Your task to perform on an android device: refresh tabs in the chrome app Image 0: 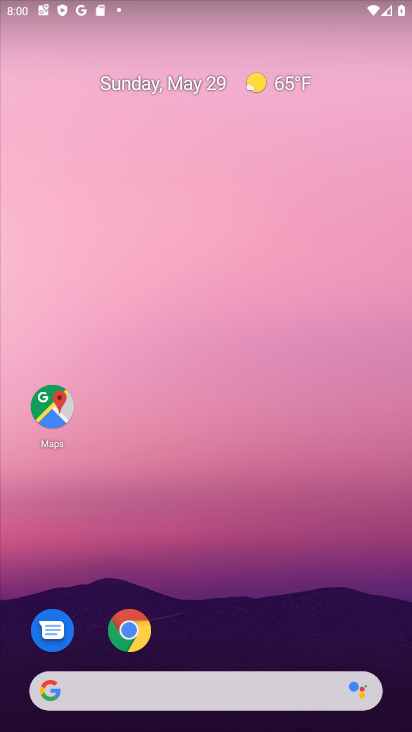
Step 0: click (123, 626)
Your task to perform on an android device: refresh tabs in the chrome app Image 1: 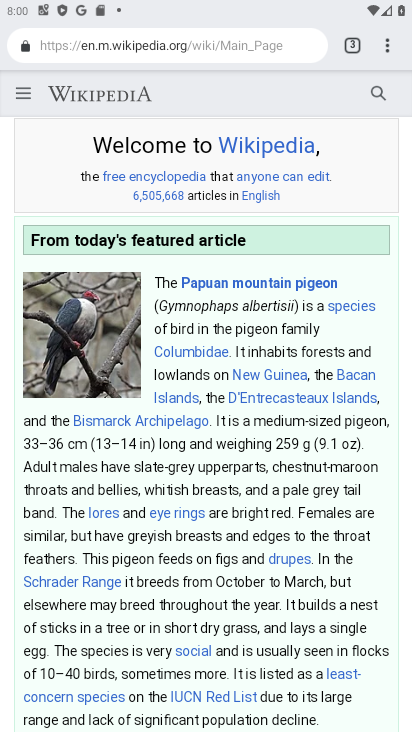
Step 1: click (388, 50)
Your task to perform on an android device: refresh tabs in the chrome app Image 2: 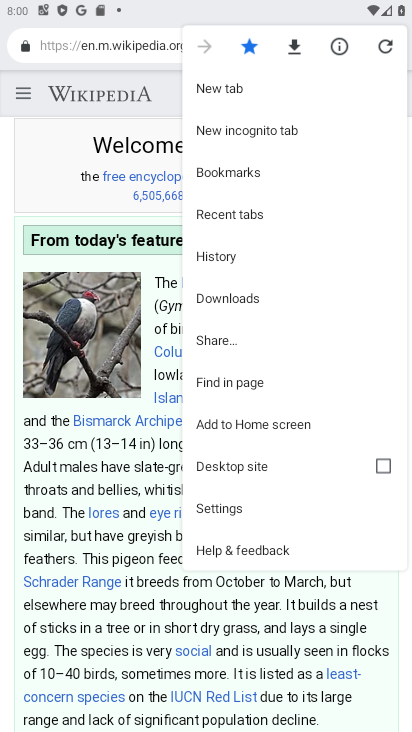
Step 2: click (386, 42)
Your task to perform on an android device: refresh tabs in the chrome app Image 3: 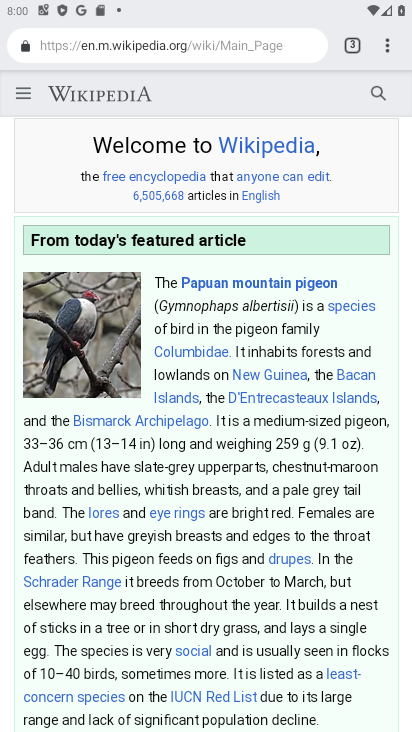
Step 3: task complete